Your task to perform on an android device: Open network settings Image 0: 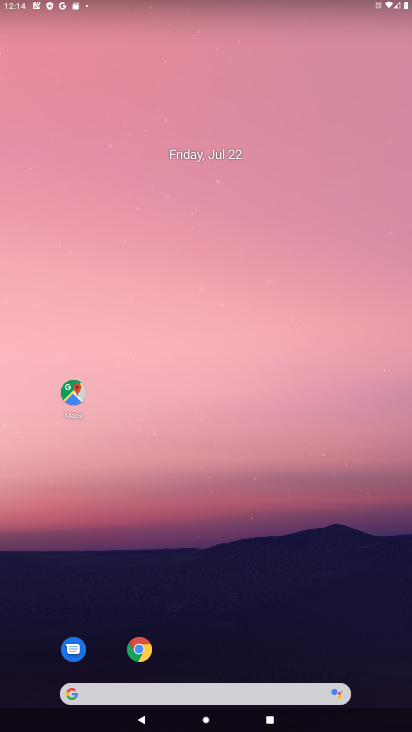
Step 0: drag from (252, 628) to (71, 42)
Your task to perform on an android device: Open network settings Image 1: 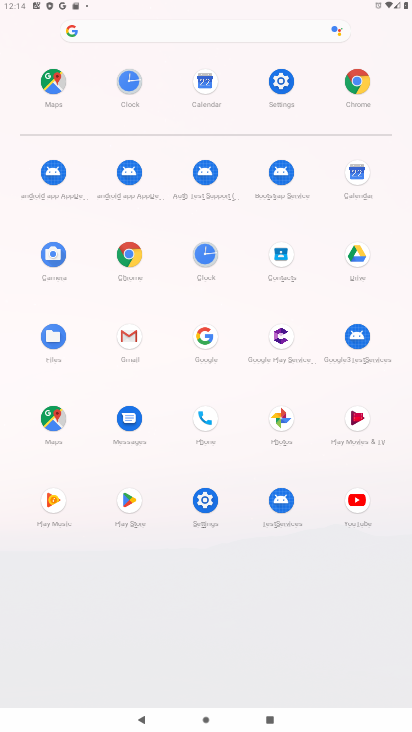
Step 1: click (293, 83)
Your task to perform on an android device: Open network settings Image 2: 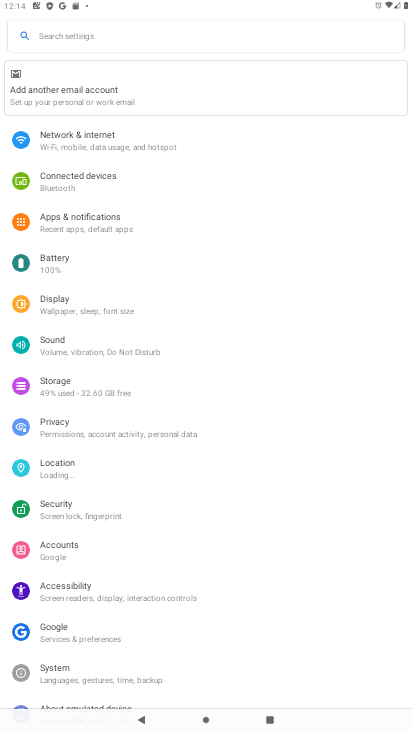
Step 2: click (82, 149)
Your task to perform on an android device: Open network settings Image 3: 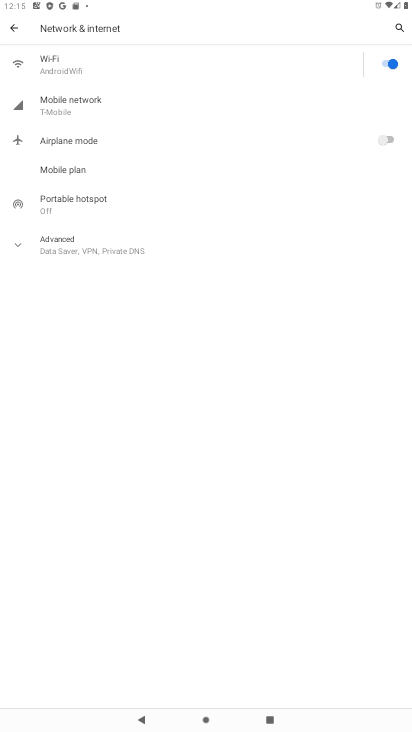
Step 3: task complete